Your task to perform on an android device: Go to CNN.com Image 0: 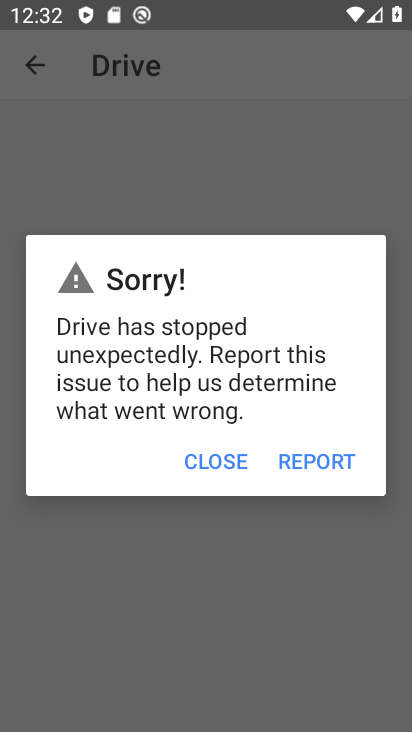
Step 0: press back button
Your task to perform on an android device: Go to CNN.com Image 1: 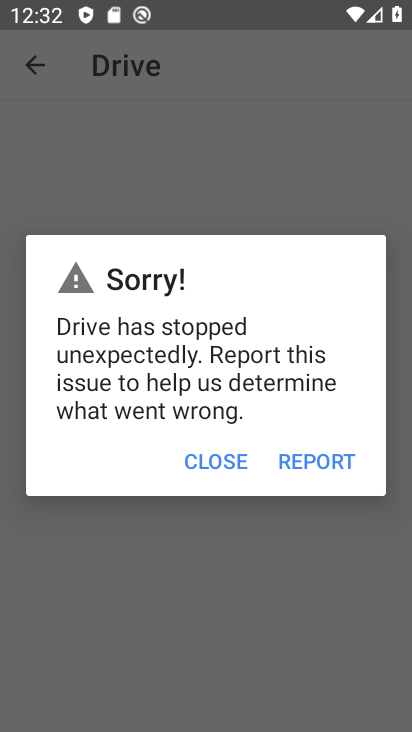
Step 1: press back button
Your task to perform on an android device: Go to CNN.com Image 2: 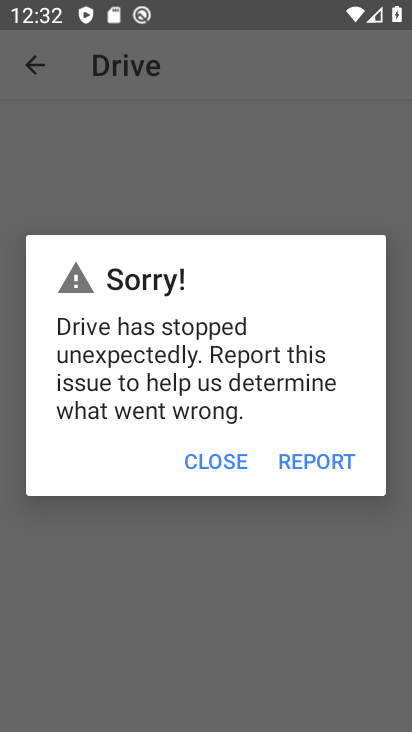
Step 2: press home button
Your task to perform on an android device: Go to CNN.com Image 3: 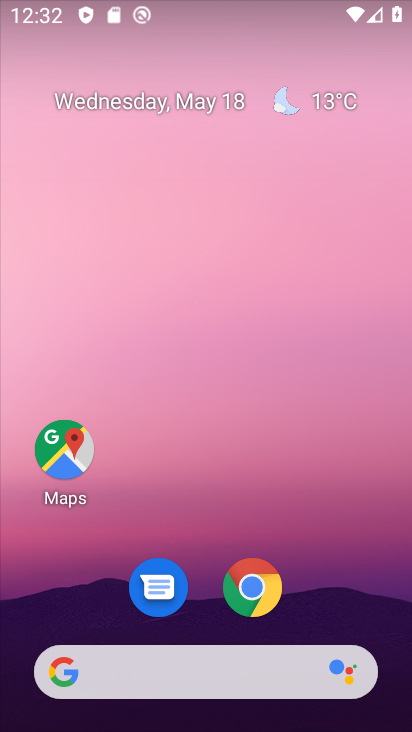
Step 3: click (247, 601)
Your task to perform on an android device: Go to CNN.com Image 4: 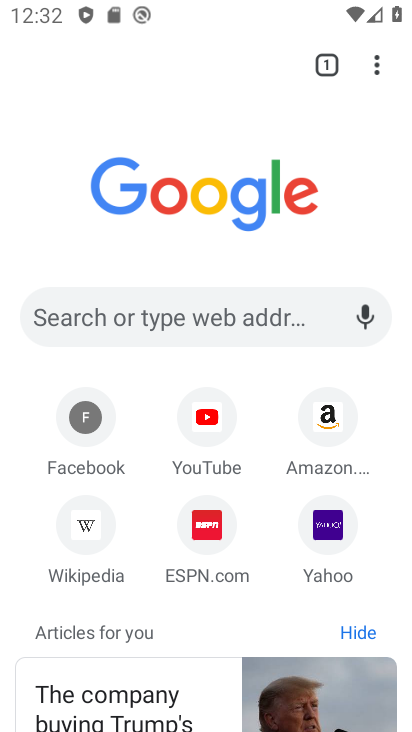
Step 4: click (133, 303)
Your task to perform on an android device: Go to CNN.com Image 5: 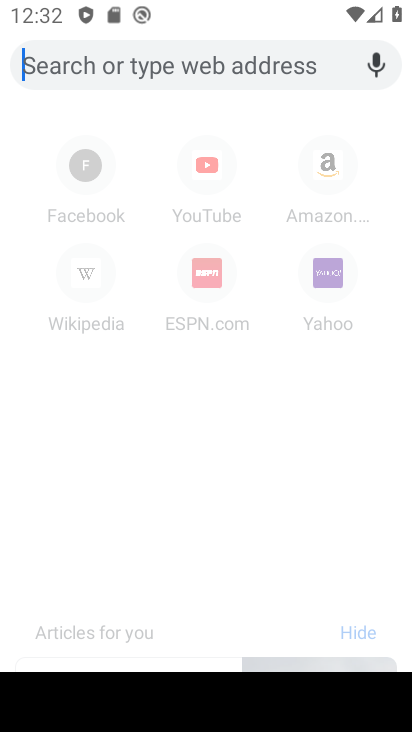
Step 5: type "cnn.com"
Your task to perform on an android device: Go to CNN.com Image 6: 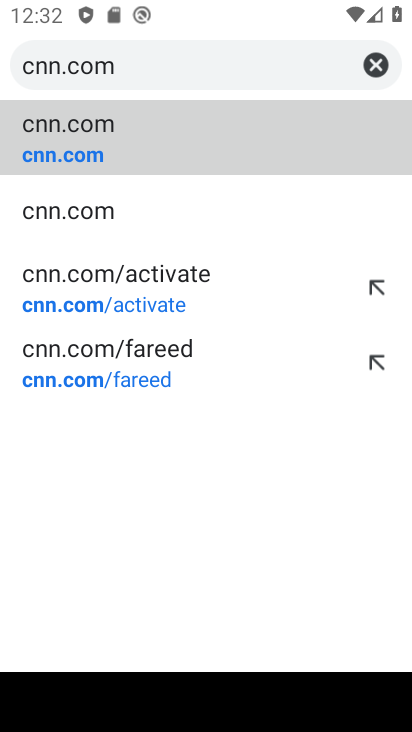
Step 6: click (121, 140)
Your task to perform on an android device: Go to CNN.com Image 7: 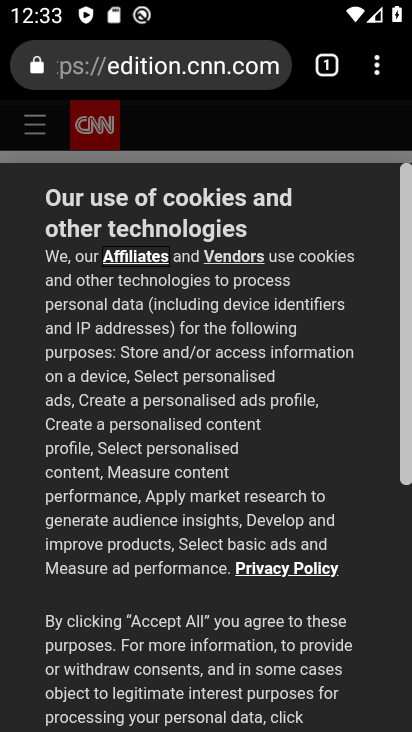
Step 7: task complete